Your task to perform on an android device: turn off wifi Image 0: 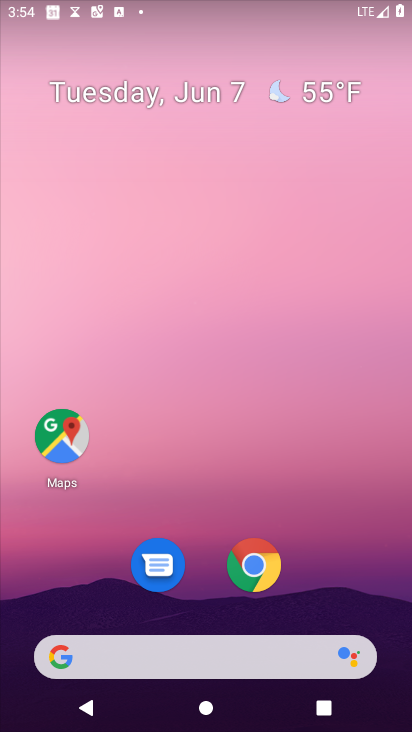
Step 0: drag from (297, 594) to (354, 28)
Your task to perform on an android device: turn off wifi Image 1: 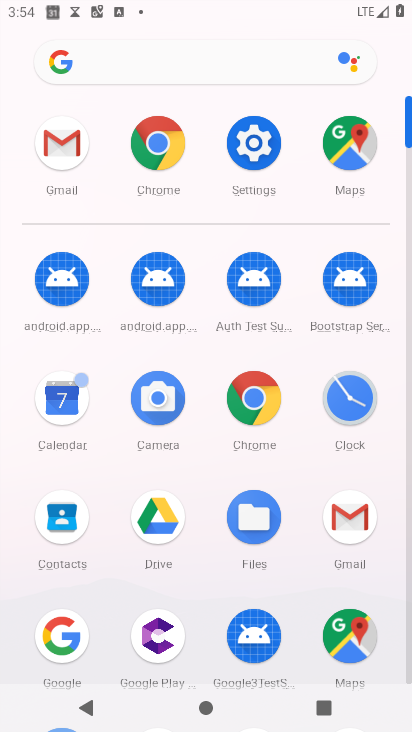
Step 1: click (249, 154)
Your task to perform on an android device: turn off wifi Image 2: 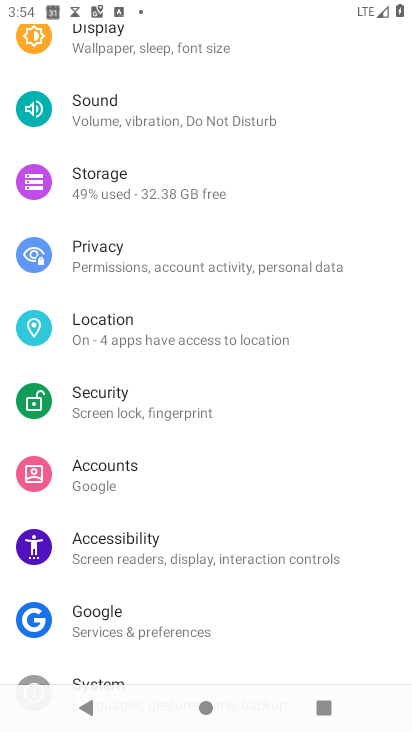
Step 2: drag from (245, 243) to (255, 682)
Your task to perform on an android device: turn off wifi Image 3: 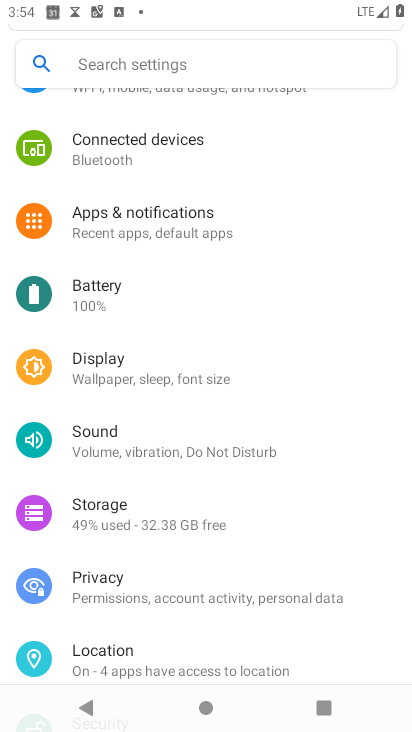
Step 3: drag from (192, 307) to (196, 672)
Your task to perform on an android device: turn off wifi Image 4: 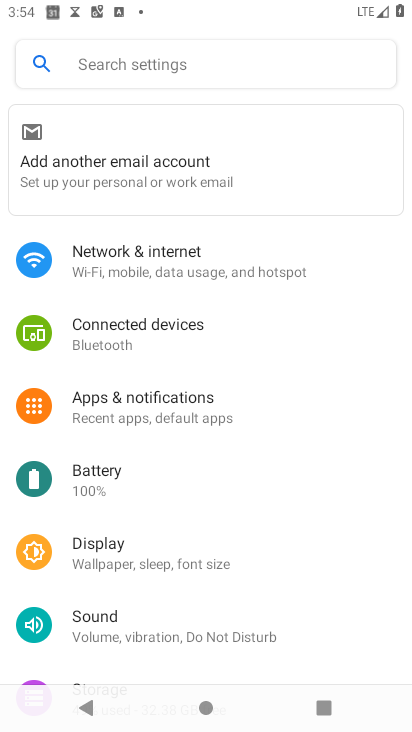
Step 4: click (193, 146)
Your task to perform on an android device: turn off wifi Image 5: 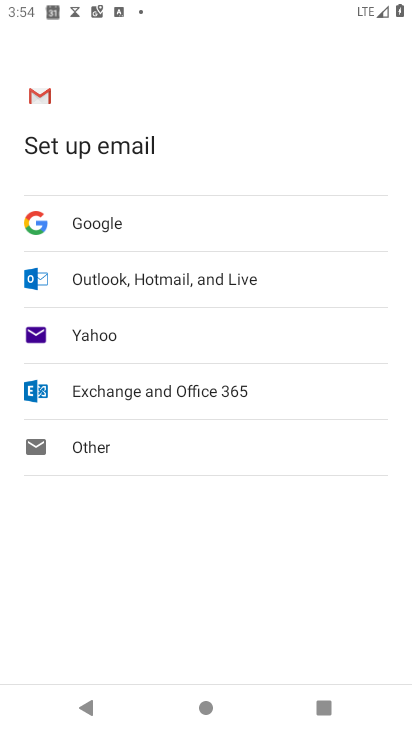
Step 5: press back button
Your task to perform on an android device: turn off wifi Image 6: 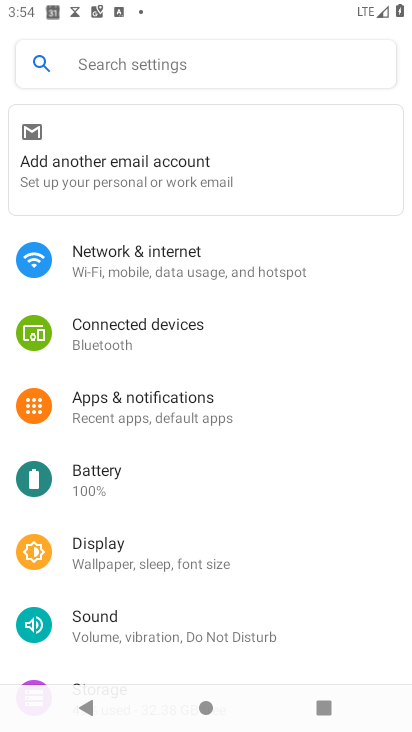
Step 6: click (181, 254)
Your task to perform on an android device: turn off wifi Image 7: 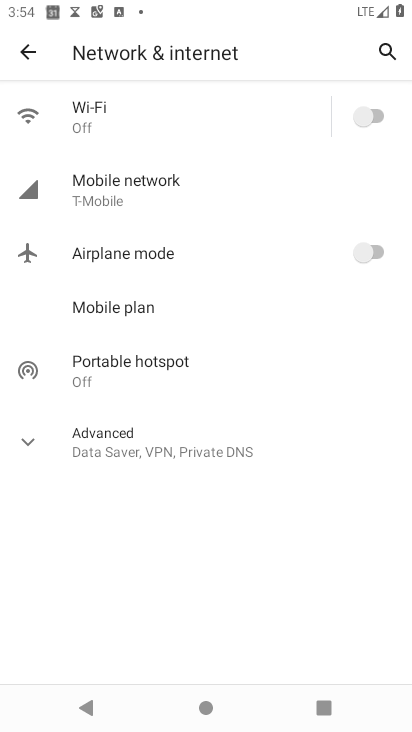
Step 7: task complete